Your task to perform on an android device: Open Maps and search for coffee Image 0: 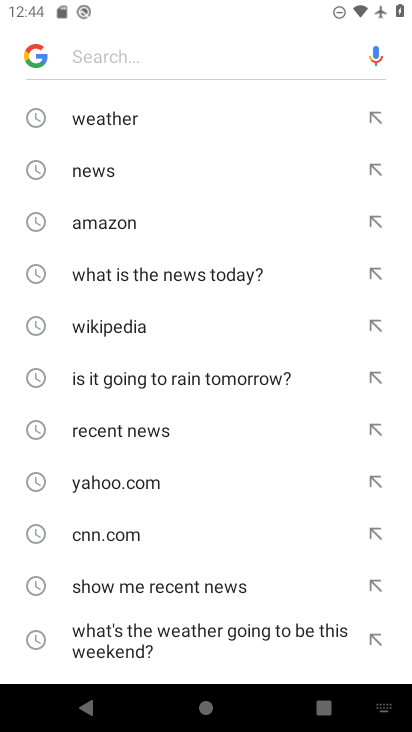
Step 0: press home button
Your task to perform on an android device: Open Maps and search for coffee Image 1: 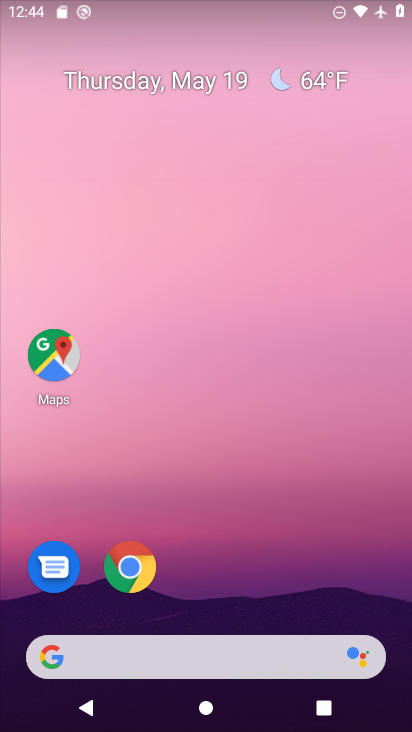
Step 1: click (56, 355)
Your task to perform on an android device: Open Maps and search for coffee Image 2: 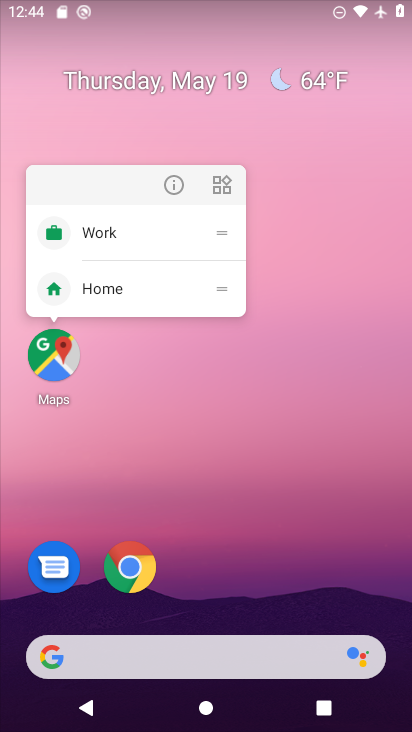
Step 2: click (60, 371)
Your task to perform on an android device: Open Maps and search for coffee Image 3: 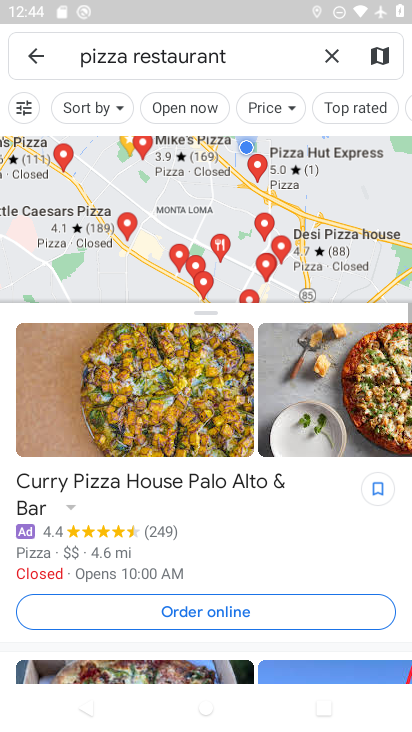
Step 3: click (330, 60)
Your task to perform on an android device: Open Maps and search for coffee Image 4: 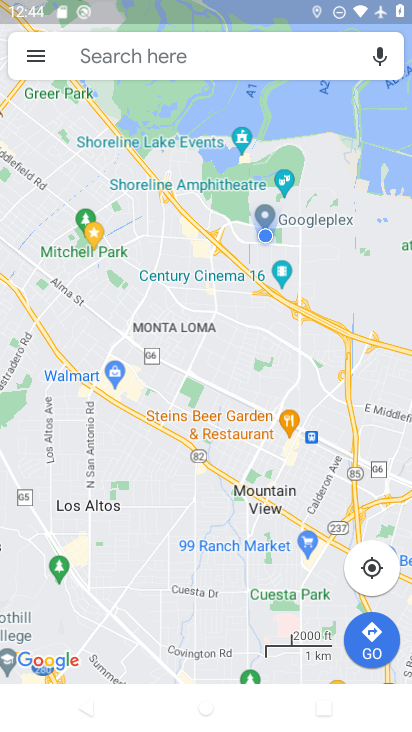
Step 4: click (195, 64)
Your task to perform on an android device: Open Maps and search for coffee Image 5: 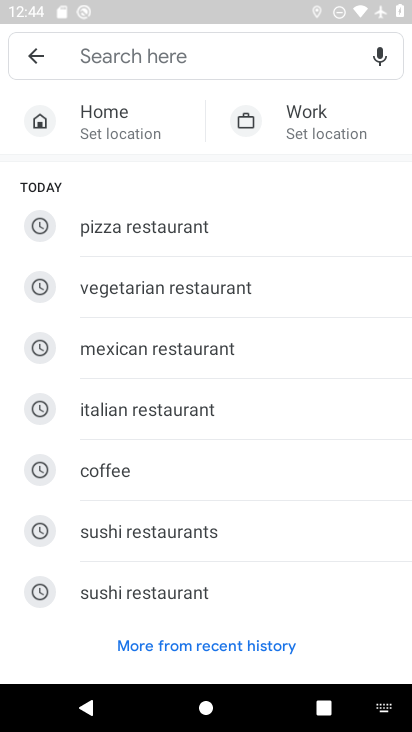
Step 5: click (138, 469)
Your task to perform on an android device: Open Maps and search for coffee Image 6: 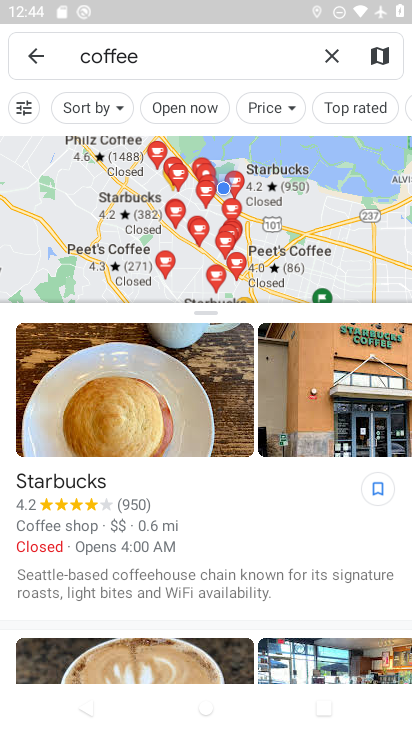
Step 6: task complete